Your task to perform on an android device: set default search engine in the chrome app Image 0: 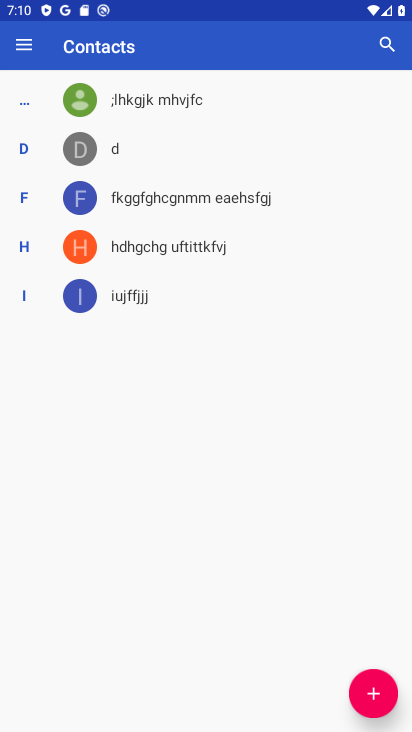
Step 0: press home button
Your task to perform on an android device: set default search engine in the chrome app Image 1: 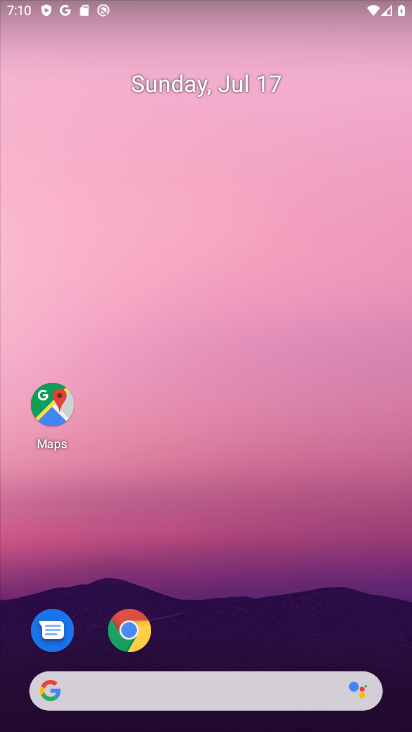
Step 1: click (128, 644)
Your task to perform on an android device: set default search engine in the chrome app Image 2: 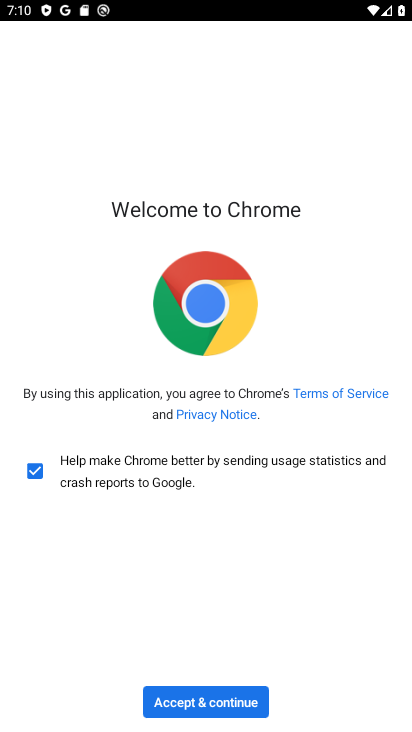
Step 2: click (184, 698)
Your task to perform on an android device: set default search engine in the chrome app Image 3: 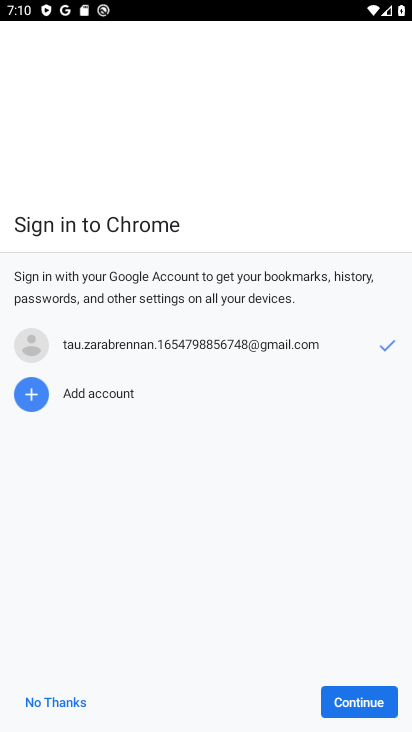
Step 3: click (380, 698)
Your task to perform on an android device: set default search engine in the chrome app Image 4: 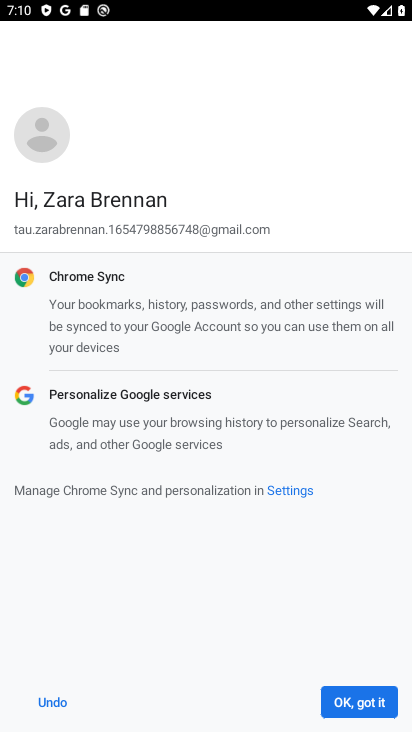
Step 4: click (380, 698)
Your task to perform on an android device: set default search engine in the chrome app Image 5: 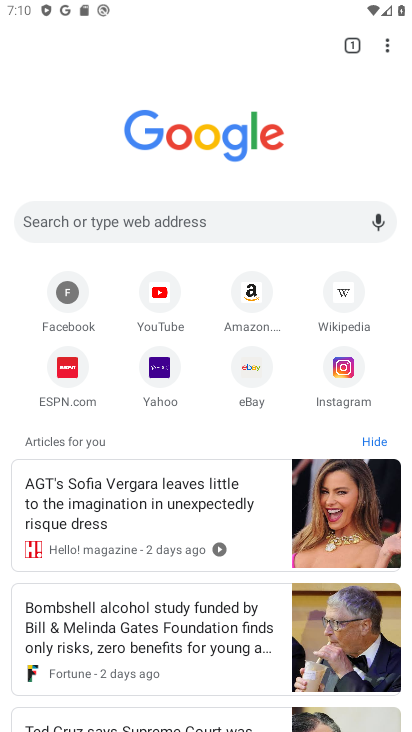
Step 5: click (385, 42)
Your task to perform on an android device: set default search engine in the chrome app Image 6: 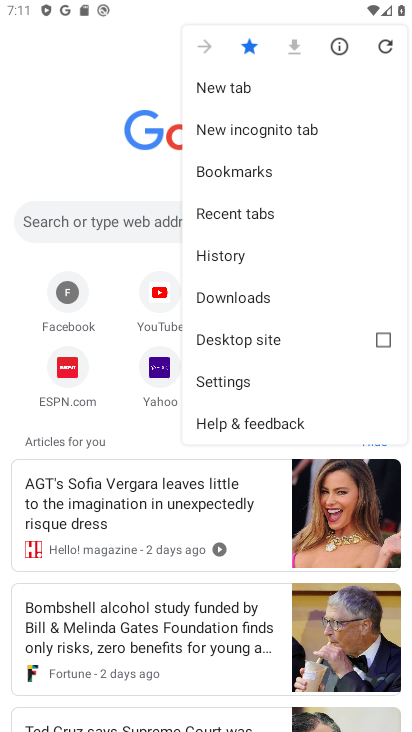
Step 6: click (218, 388)
Your task to perform on an android device: set default search engine in the chrome app Image 7: 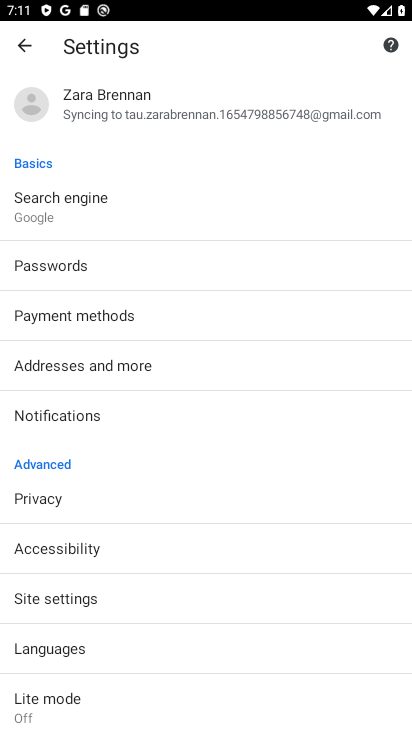
Step 7: click (106, 206)
Your task to perform on an android device: set default search engine in the chrome app Image 8: 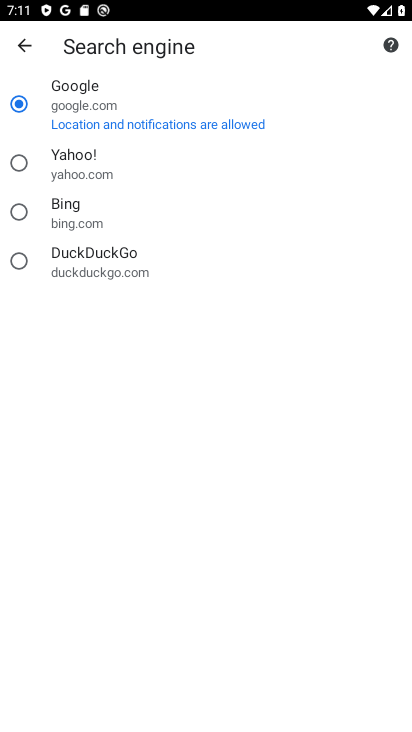
Step 8: click (14, 161)
Your task to perform on an android device: set default search engine in the chrome app Image 9: 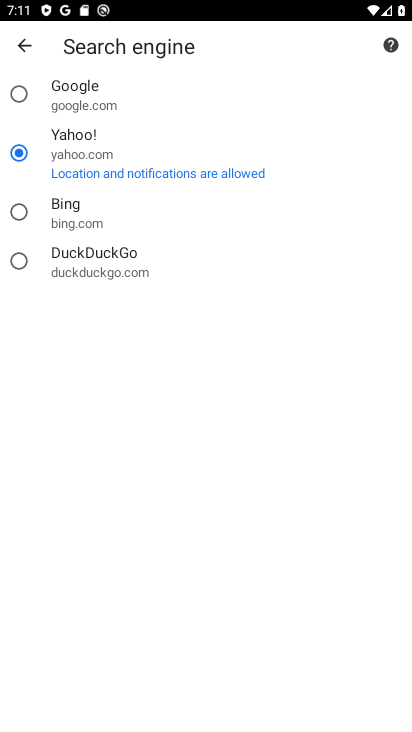
Step 9: task complete